Your task to perform on an android device: Open Wikipedia Image 0: 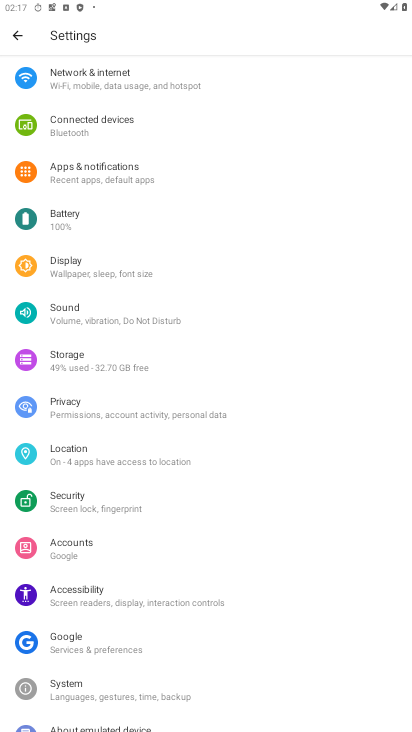
Step 0: press home button
Your task to perform on an android device: Open Wikipedia Image 1: 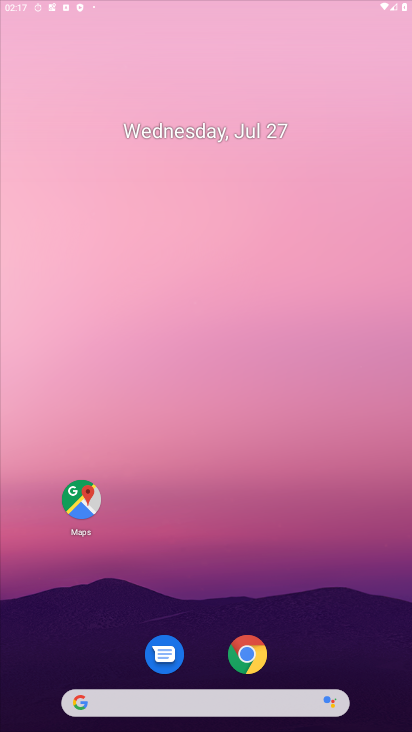
Step 1: drag from (143, 722) to (223, 102)
Your task to perform on an android device: Open Wikipedia Image 2: 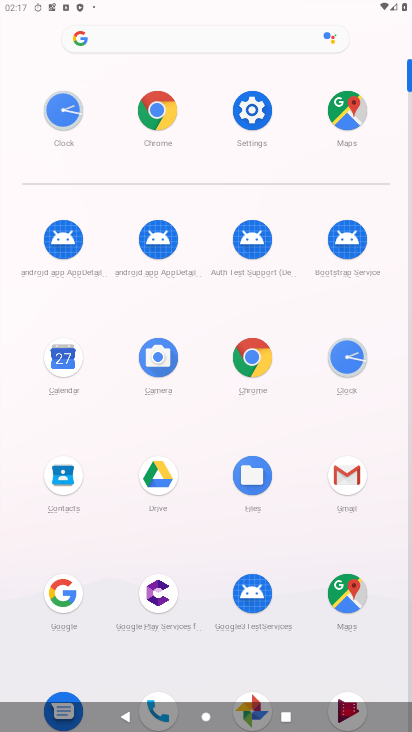
Step 2: click (269, 367)
Your task to perform on an android device: Open Wikipedia Image 3: 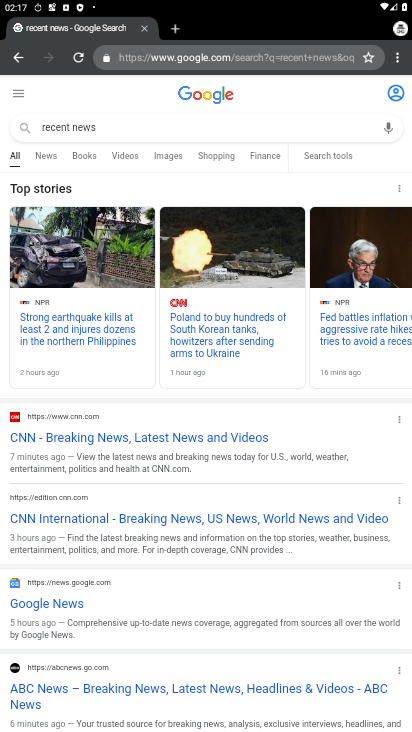
Step 3: drag from (394, 47) to (350, 53)
Your task to perform on an android device: Open Wikipedia Image 4: 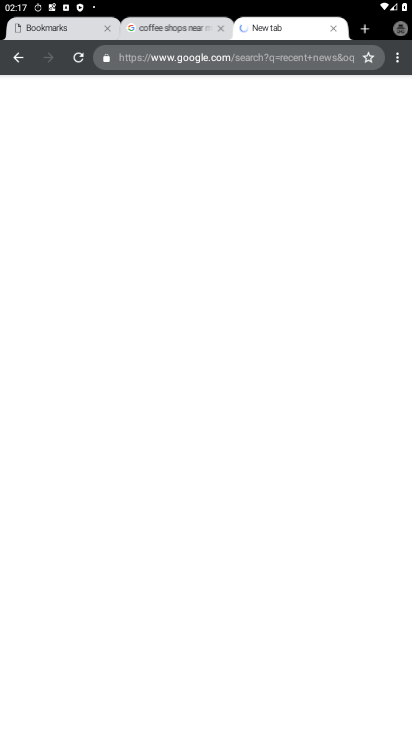
Step 4: click (336, 39)
Your task to perform on an android device: Open Wikipedia Image 5: 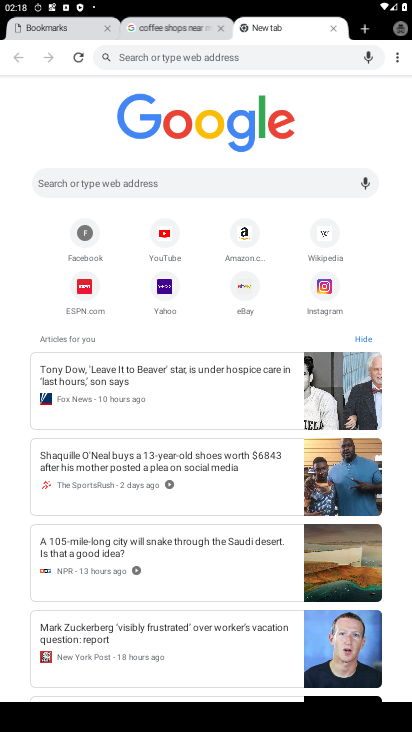
Step 5: click (331, 239)
Your task to perform on an android device: Open Wikipedia Image 6: 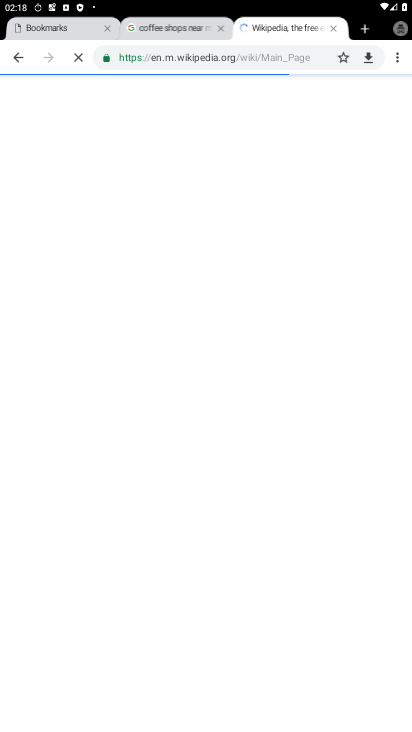
Step 6: task complete